Your task to perform on an android device: toggle wifi Image 0: 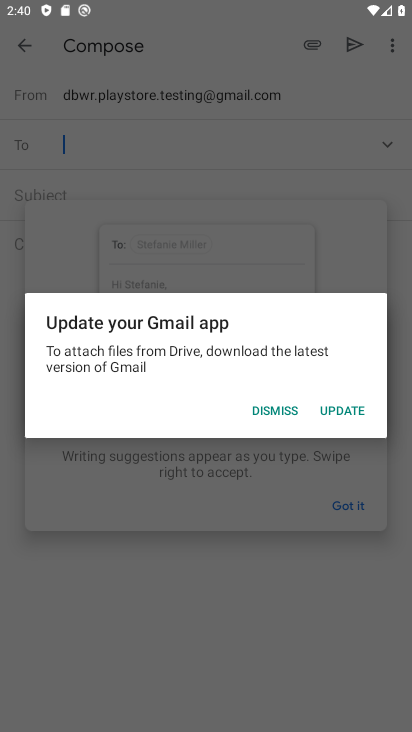
Step 0: press home button
Your task to perform on an android device: toggle wifi Image 1: 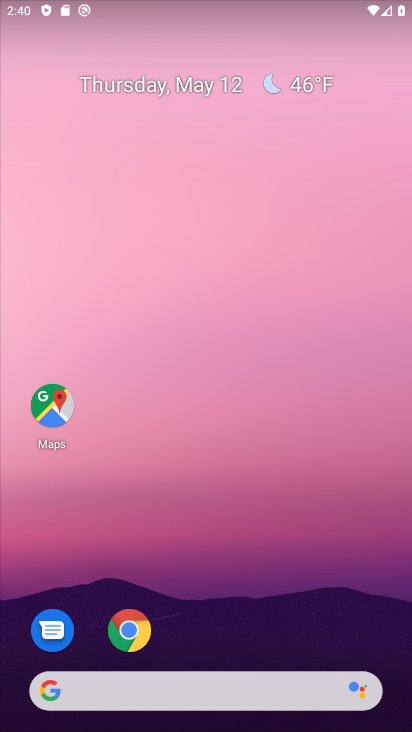
Step 1: drag from (187, 484) to (178, 184)
Your task to perform on an android device: toggle wifi Image 2: 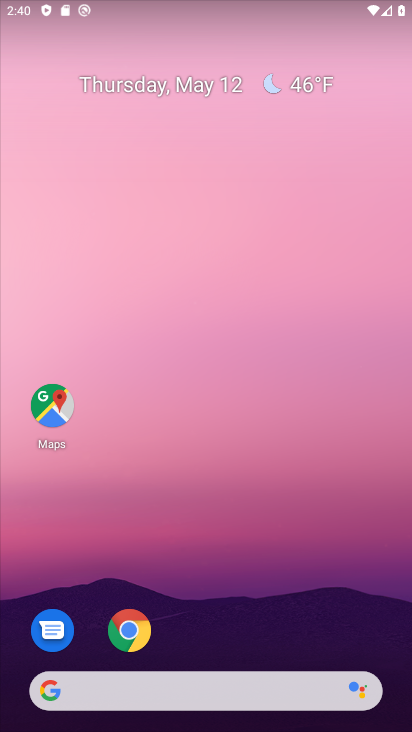
Step 2: drag from (269, 617) to (320, 24)
Your task to perform on an android device: toggle wifi Image 3: 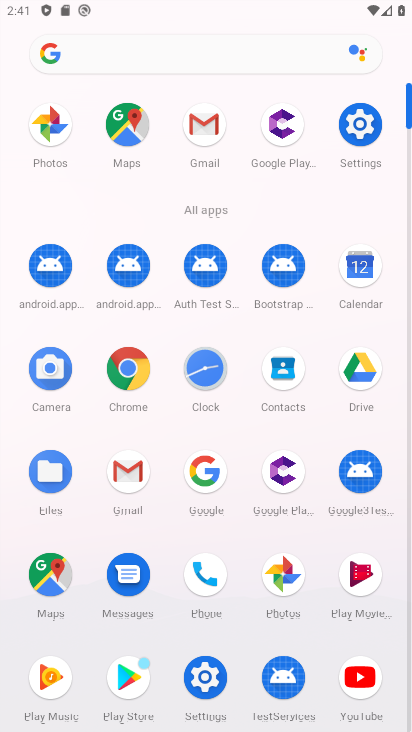
Step 3: click (356, 127)
Your task to perform on an android device: toggle wifi Image 4: 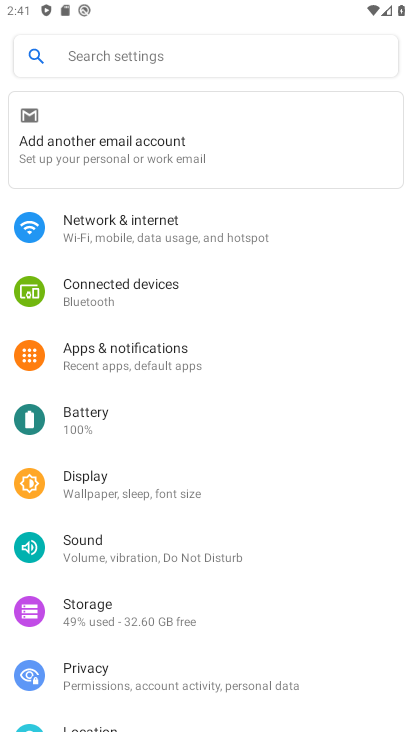
Step 4: click (167, 225)
Your task to perform on an android device: toggle wifi Image 5: 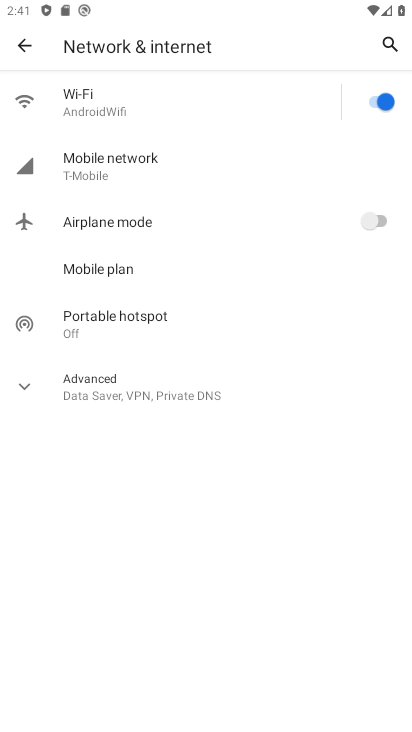
Step 5: click (377, 106)
Your task to perform on an android device: toggle wifi Image 6: 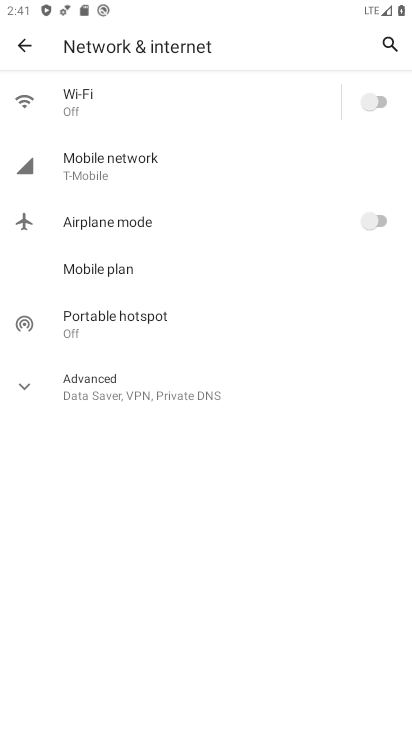
Step 6: task complete